Your task to perform on an android device: Go to Google Image 0: 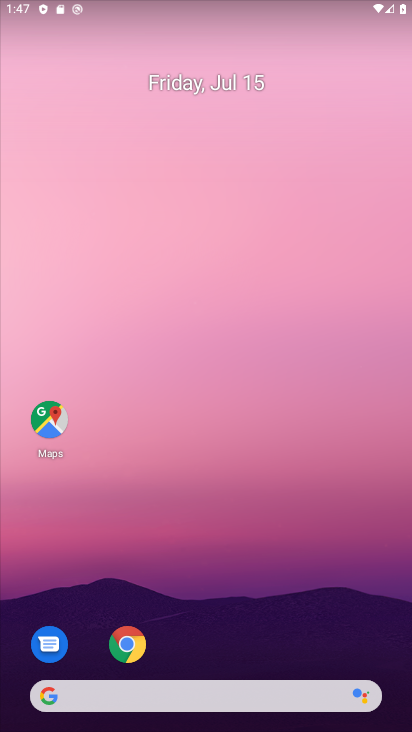
Step 0: click (126, 682)
Your task to perform on an android device: Go to Google Image 1: 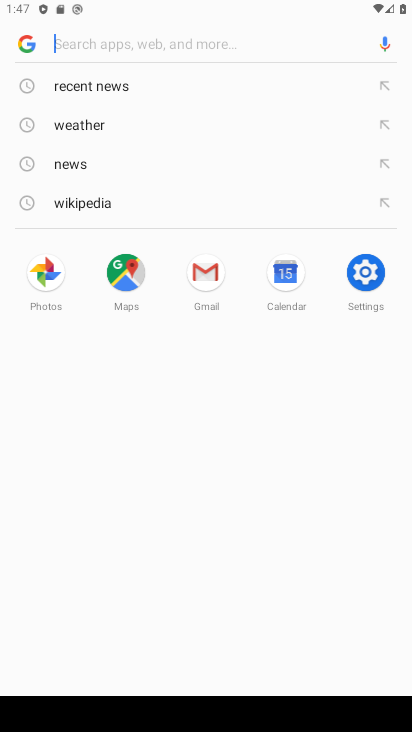
Step 1: task complete